Your task to perform on an android device: What is the news today? Image 0: 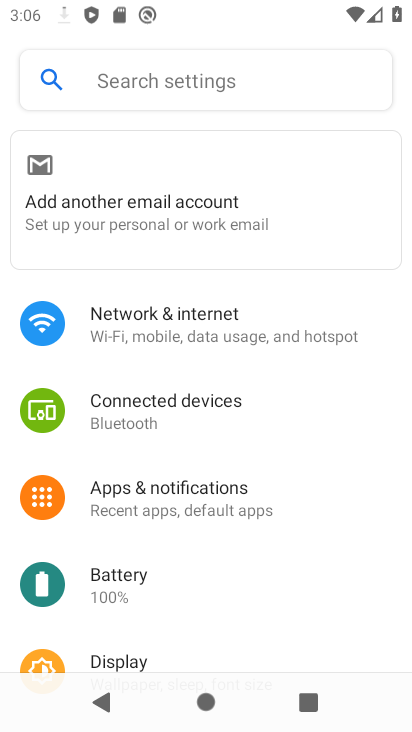
Step 0: press back button
Your task to perform on an android device: What is the news today? Image 1: 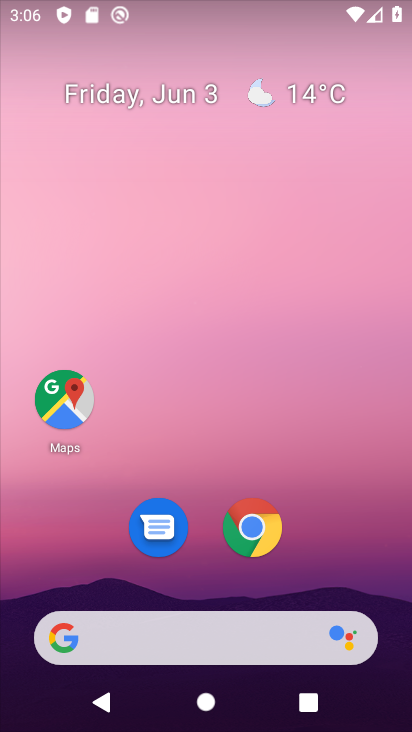
Step 1: drag from (356, 514) to (254, 86)
Your task to perform on an android device: What is the news today? Image 2: 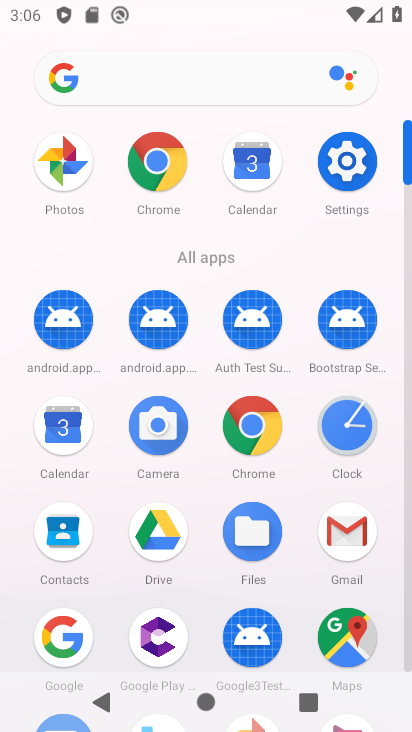
Step 2: click (56, 636)
Your task to perform on an android device: What is the news today? Image 3: 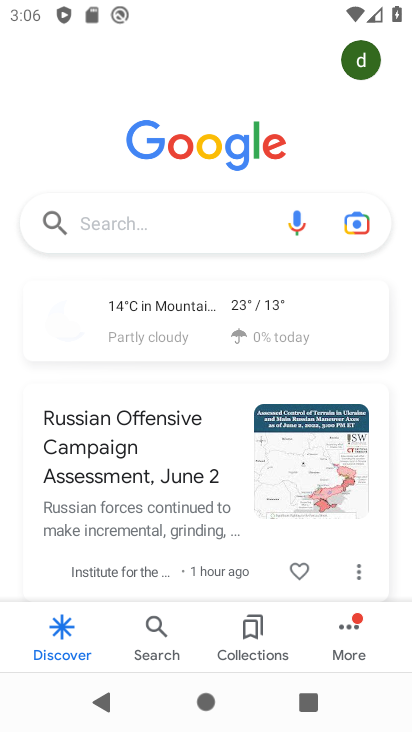
Step 3: click (202, 225)
Your task to perform on an android device: What is the news today? Image 4: 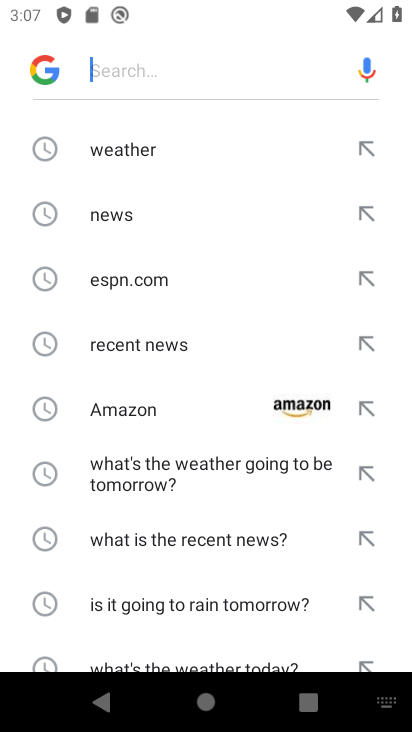
Step 4: type "news today"
Your task to perform on an android device: What is the news today? Image 5: 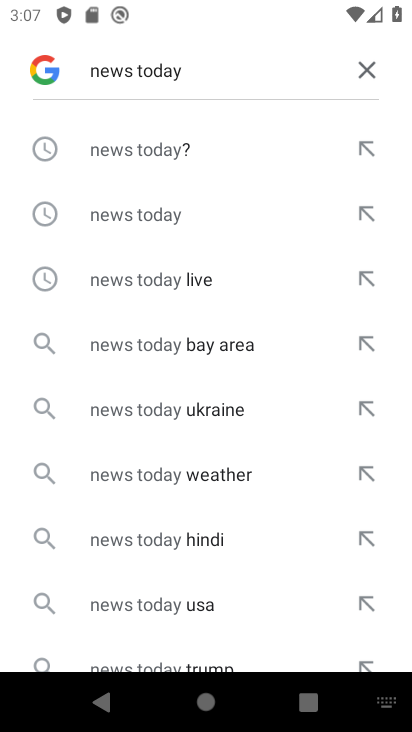
Step 5: click (172, 141)
Your task to perform on an android device: What is the news today? Image 6: 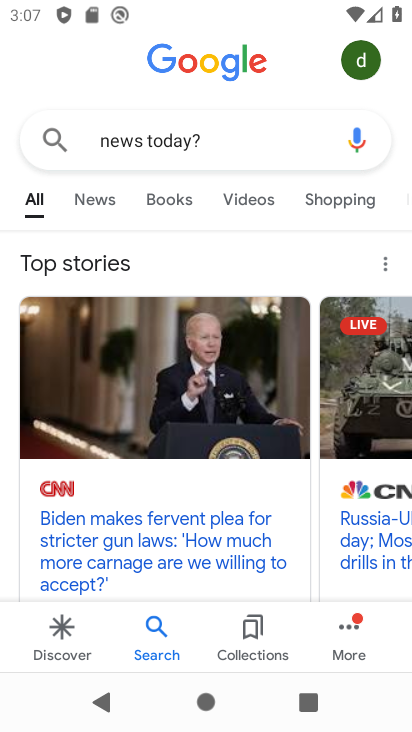
Step 6: drag from (190, 483) to (265, 332)
Your task to perform on an android device: What is the news today? Image 7: 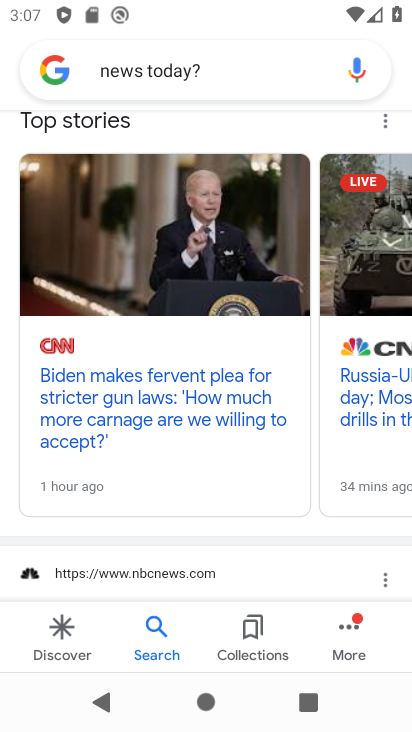
Step 7: click (196, 398)
Your task to perform on an android device: What is the news today? Image 8: 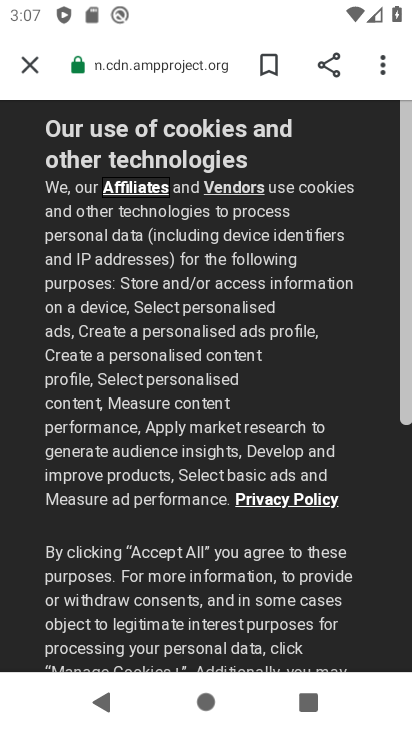
Step 8: task complete